Your task to perform on an android device: add a contact in the contacts app Image 0: 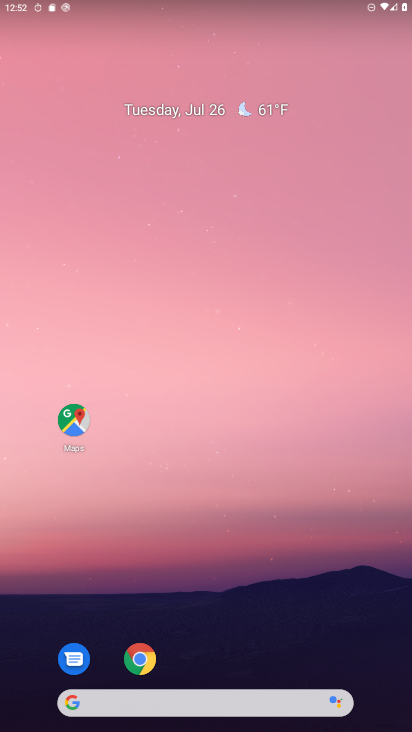
Step 0: drag from (46, 682) to (255, 328)
Your task to perform on an android device: add a contact in the contacts app Image 1: 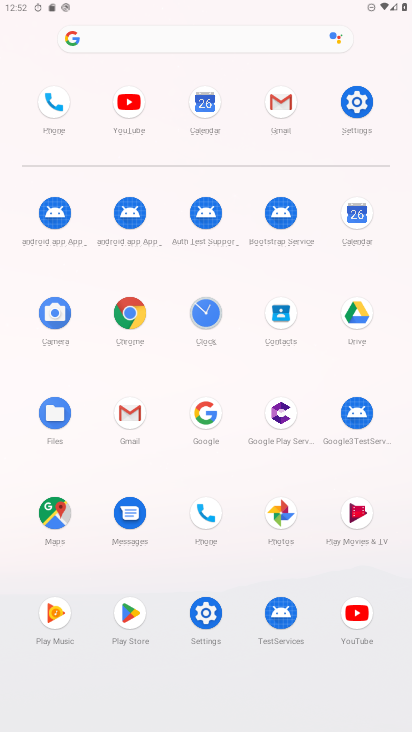
Step 1: click (205, 518)
Your task to perform on an android device: add a contact in the contacts app Image 2: 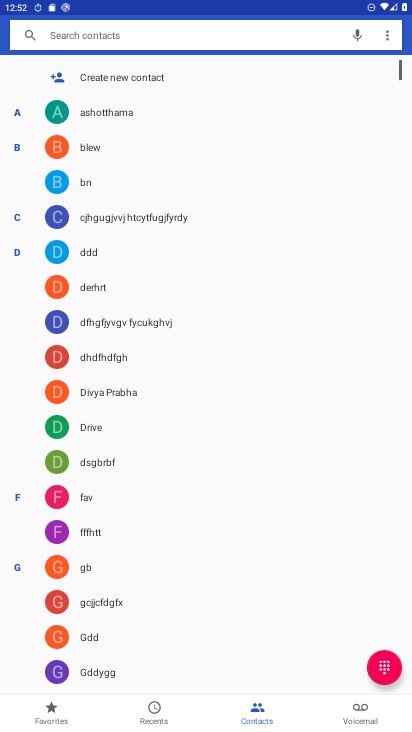
Step 2: click (157, 76)
Your task to perform on an android device: add a contact in the contacts app Image 3: 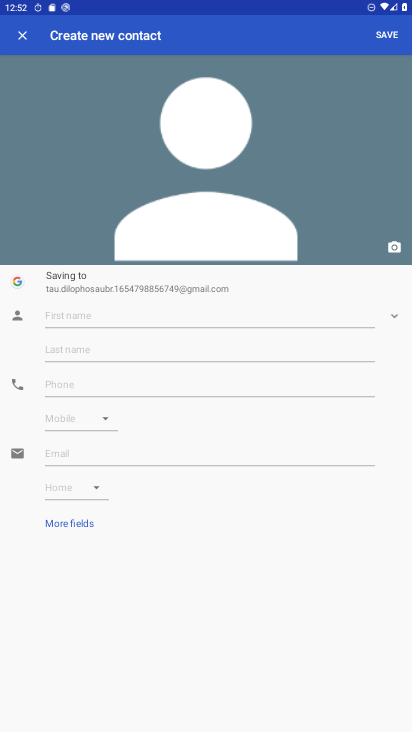
Step 3: click (70, 319)
Your task to perform on an android device: add a contact in the contacts app Image 4: 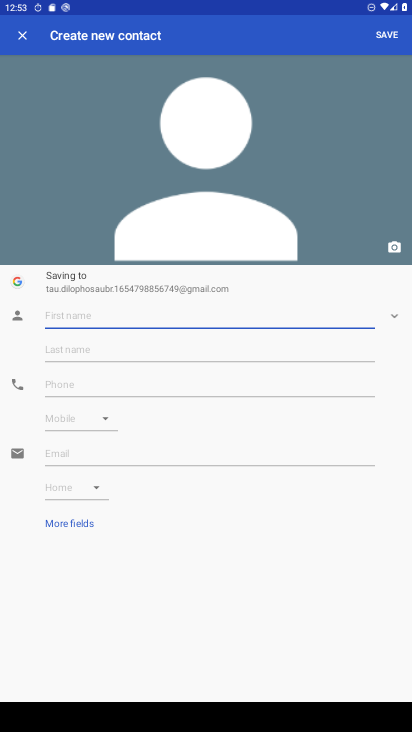
Step 4: type "dfsfgherh"
Your task to perform on an android device: add a contact in the contacts app Image 5: 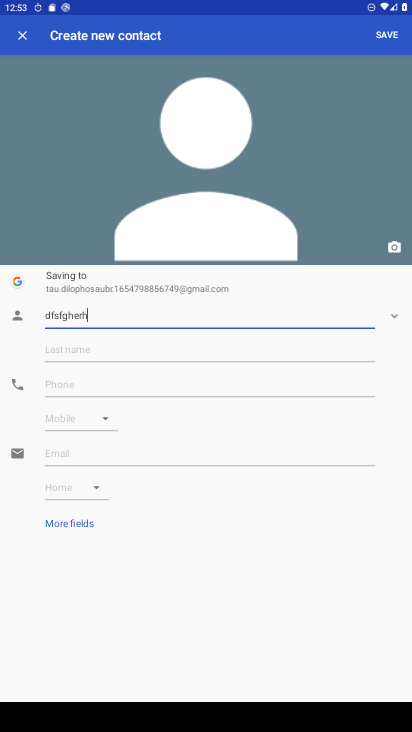
Step 5: type ""
Your task to perform on an android device: add a contact in the contacts app Image 6: 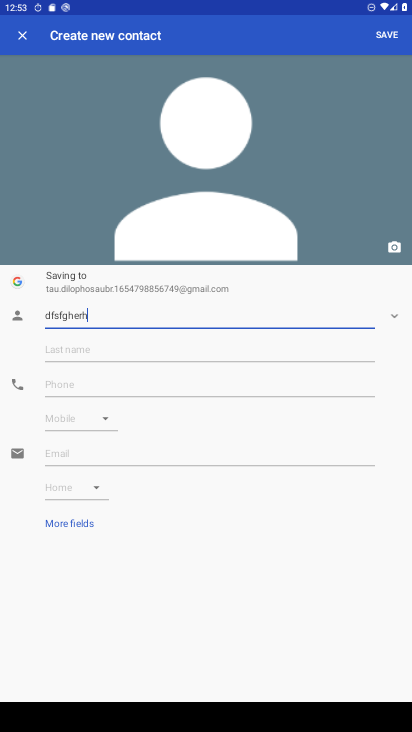
Step 6: click (377, 38)
Your task to perform on an android device: add a contact in the contacts app Image 7: 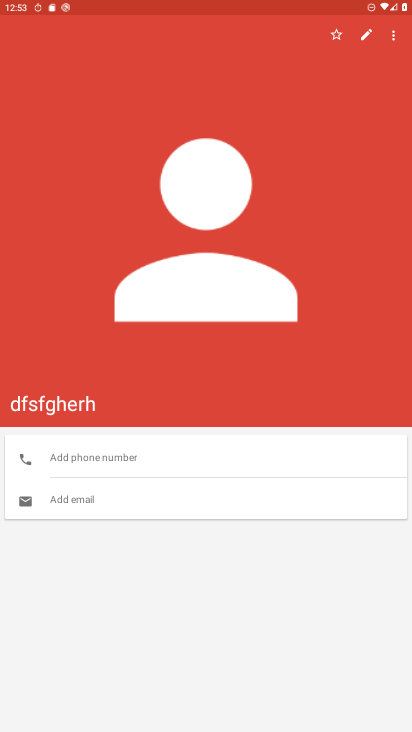
Step 7: task complete